Your task to perform on an android device: turn on wifi Image 0: 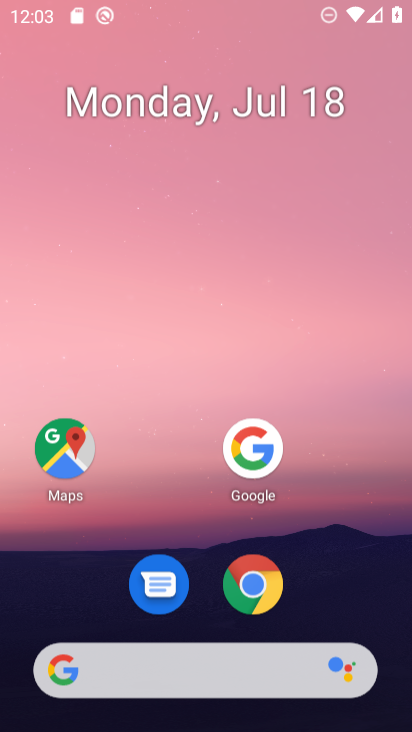
Step 0: press home button
Your task to perform on an android device: turn on wifi Image 1: 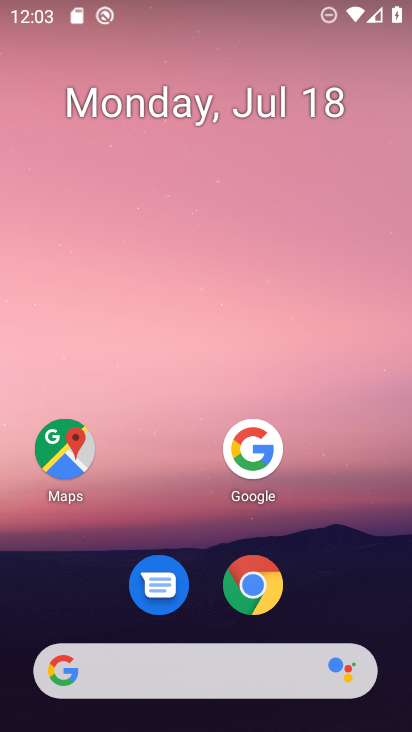
Step 1: drag from (172, 673) to (336, 138)
Your task to perform on an android device: turn on wifi Image 2: 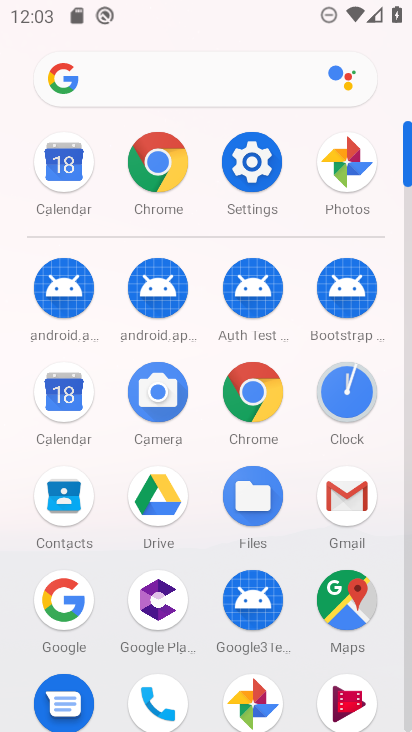
Step 2: click (260, 130)
Your task to perform on an android device: turn on wifi Image 3: 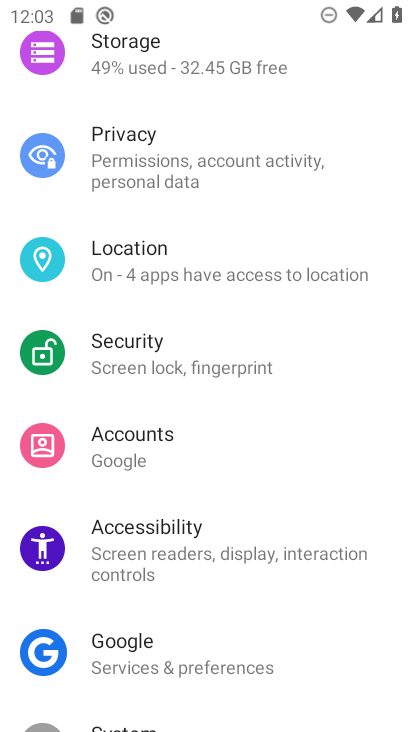
Step 3: drag from (312, 93) to (303, 611)
Your task to perform on an android device: turn on wifi Image 4: 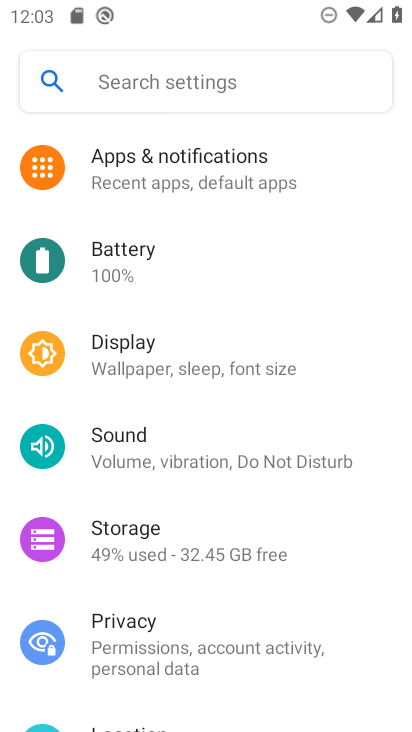
Step 4: drag from (323, 168) to (279, 612)
Your task to perform on an android device: turn on wifi Image 5: 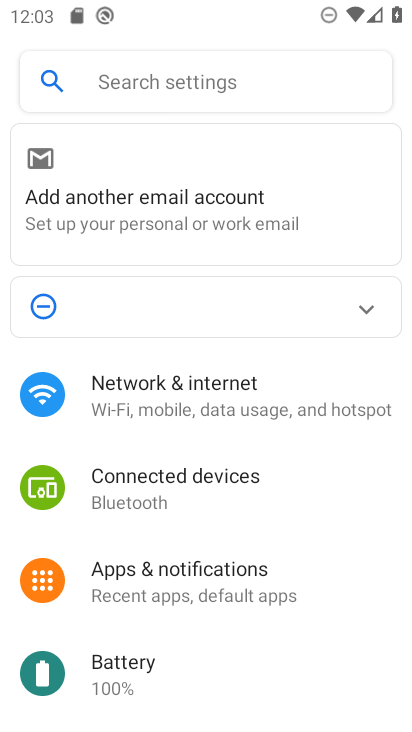
Step 5: click (205, 381)
Your task to perform on an android device: turn on wifi Image 6: 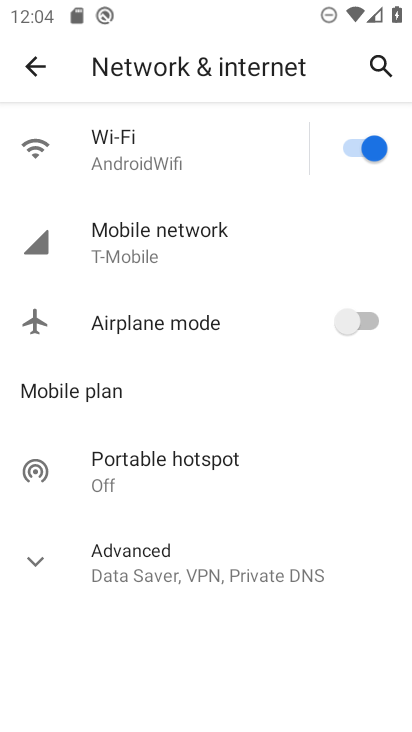
Step 6: task complete